Your task to perform on an android device: open app "Viber Messenger" (install if not already installed) and enter user name: "blameless@icloud.com" and password: "Yoknapatawpha" Image 0: 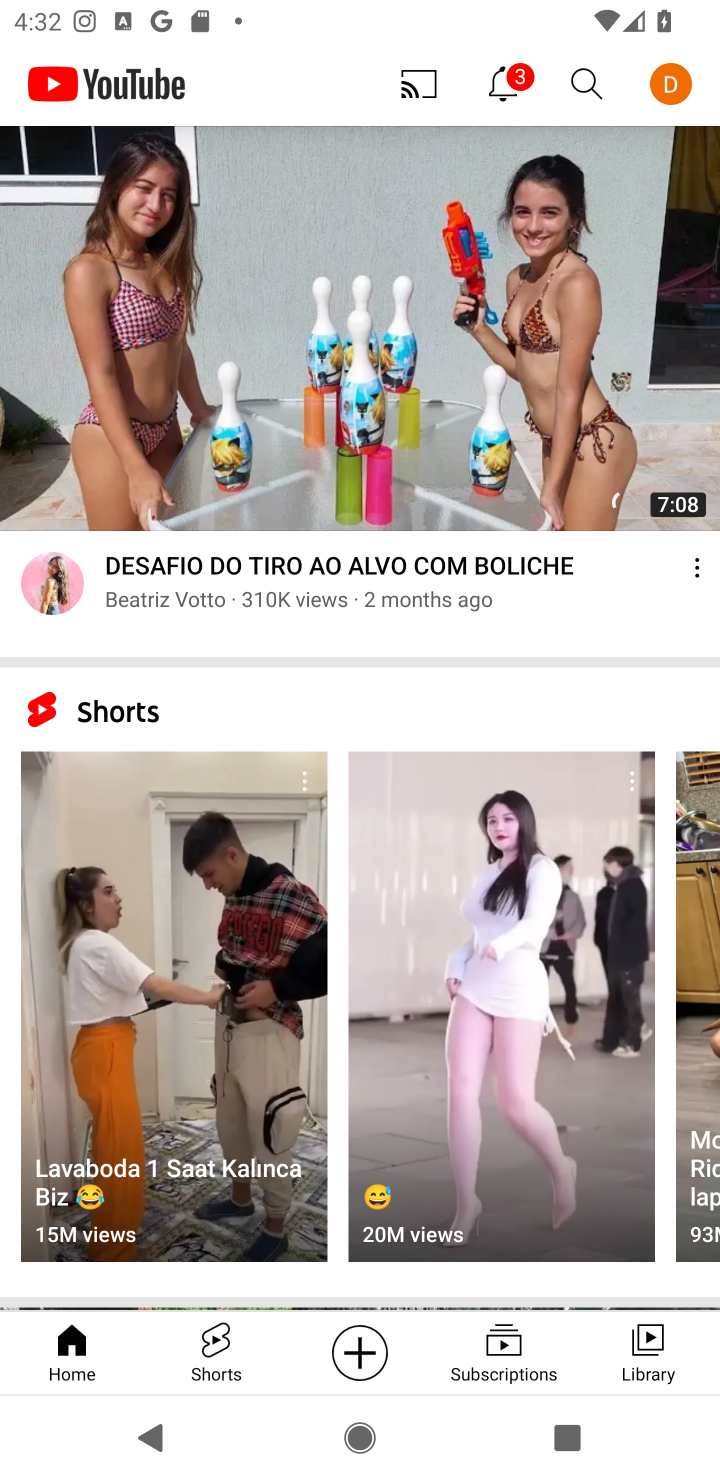
Step 0: press home button
Your task to perform on an android device: open app "Viber Messenger" (install if not already installed) and enter user name: "blameless@icloud.com" and password: "Yoknapatawpha" Image 1: 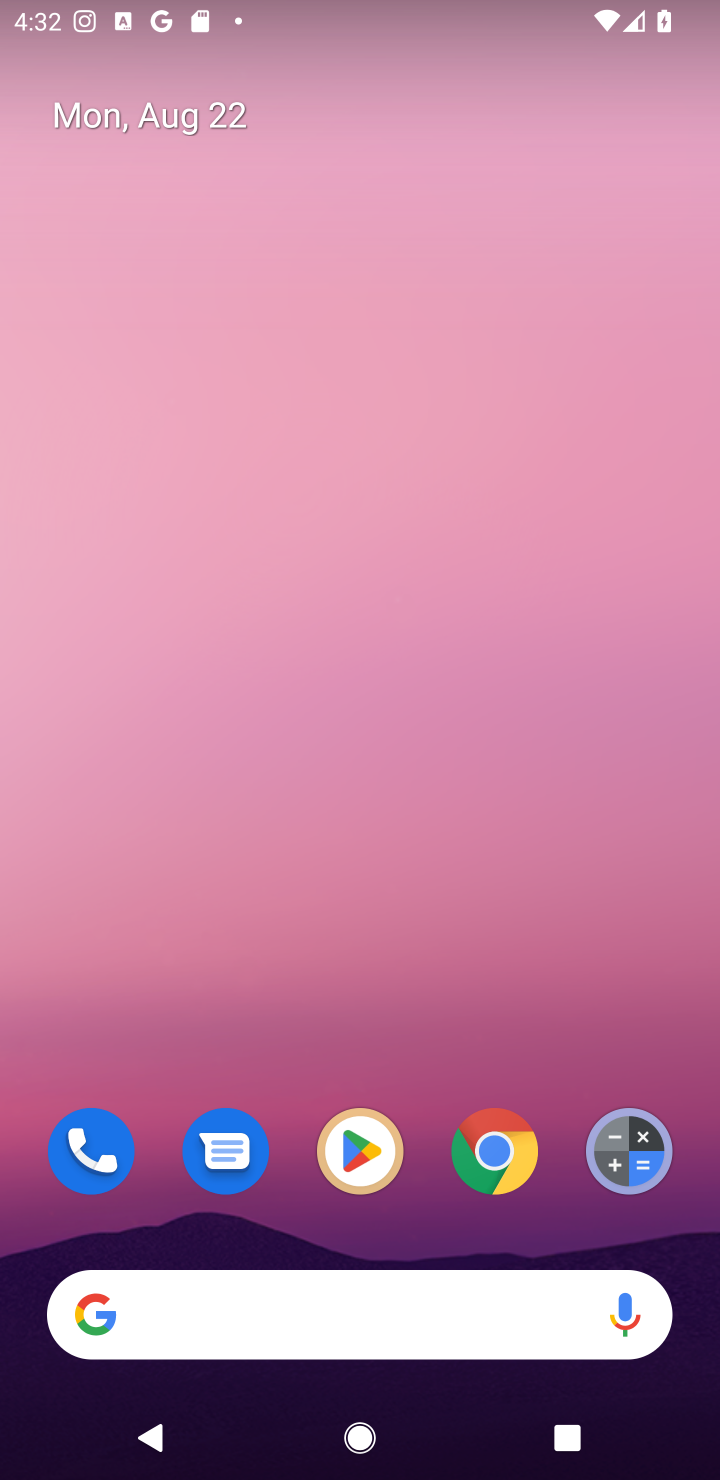
Step 1: click (357, 1147)
Your task to perform on an android device: open app "Viber Messenger" (install if not already installed) and enter user name: "blameless@icloud.com" and password: "Yoknapatawpha" Image 2: 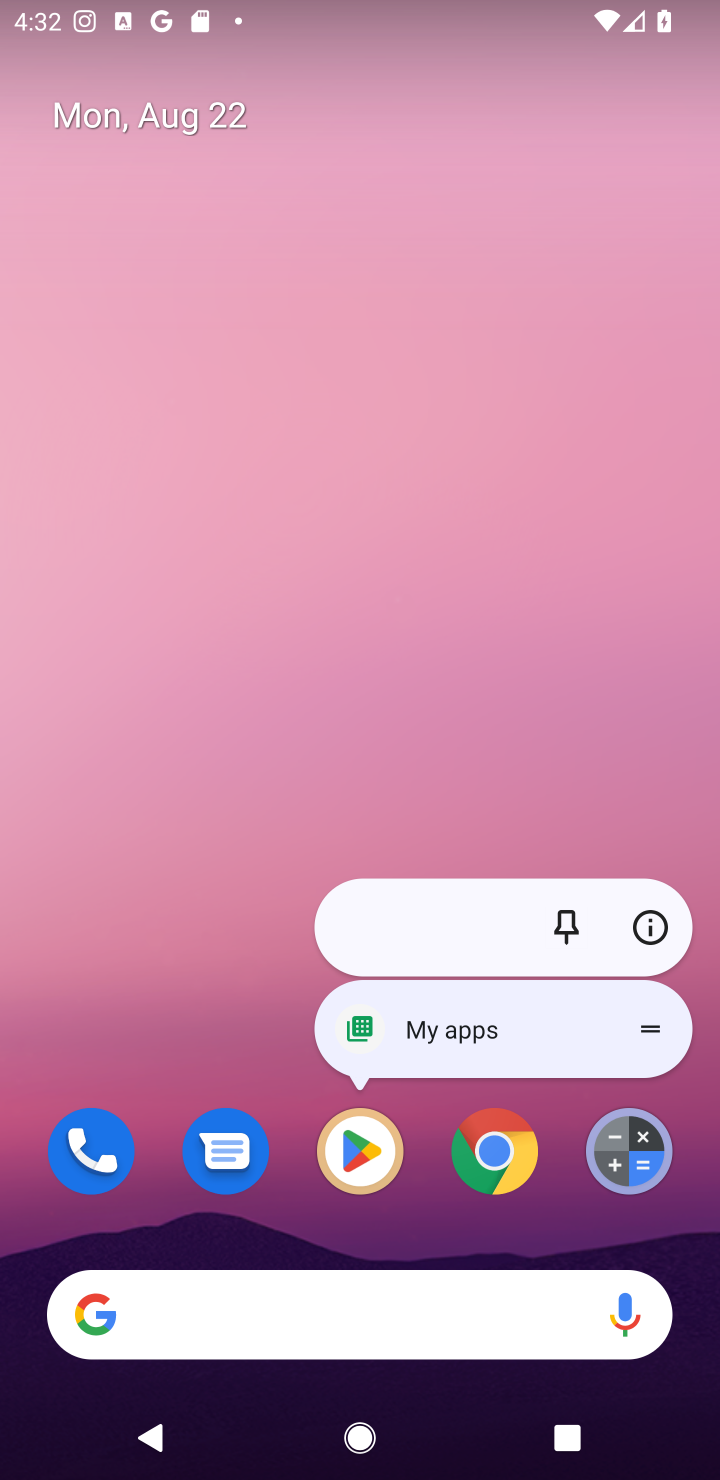
Step 2: click (357, 1148)
Your task to perform on an android device: open app "Viber Messenger" (install if not already installed) and enter user name: "blameless@icloud.com" and password: "Yoknapatawpha" Image 3: 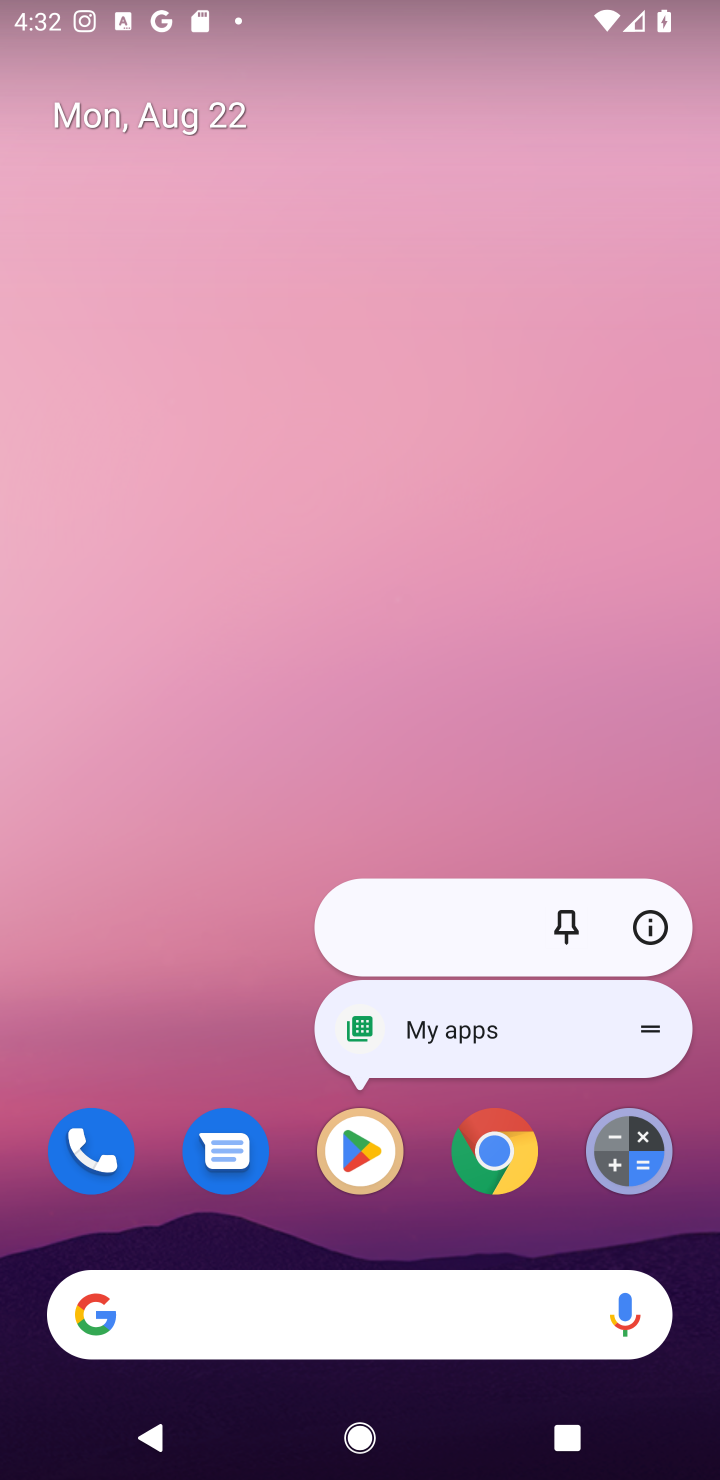
Step 3: click (347, 1167)
Your task to perform on an android device: open app "Viber Messenger" (install if not already installed) and enter user name: "blameless@icloud.com" and password: "Yoknapatawpha" Image 4: 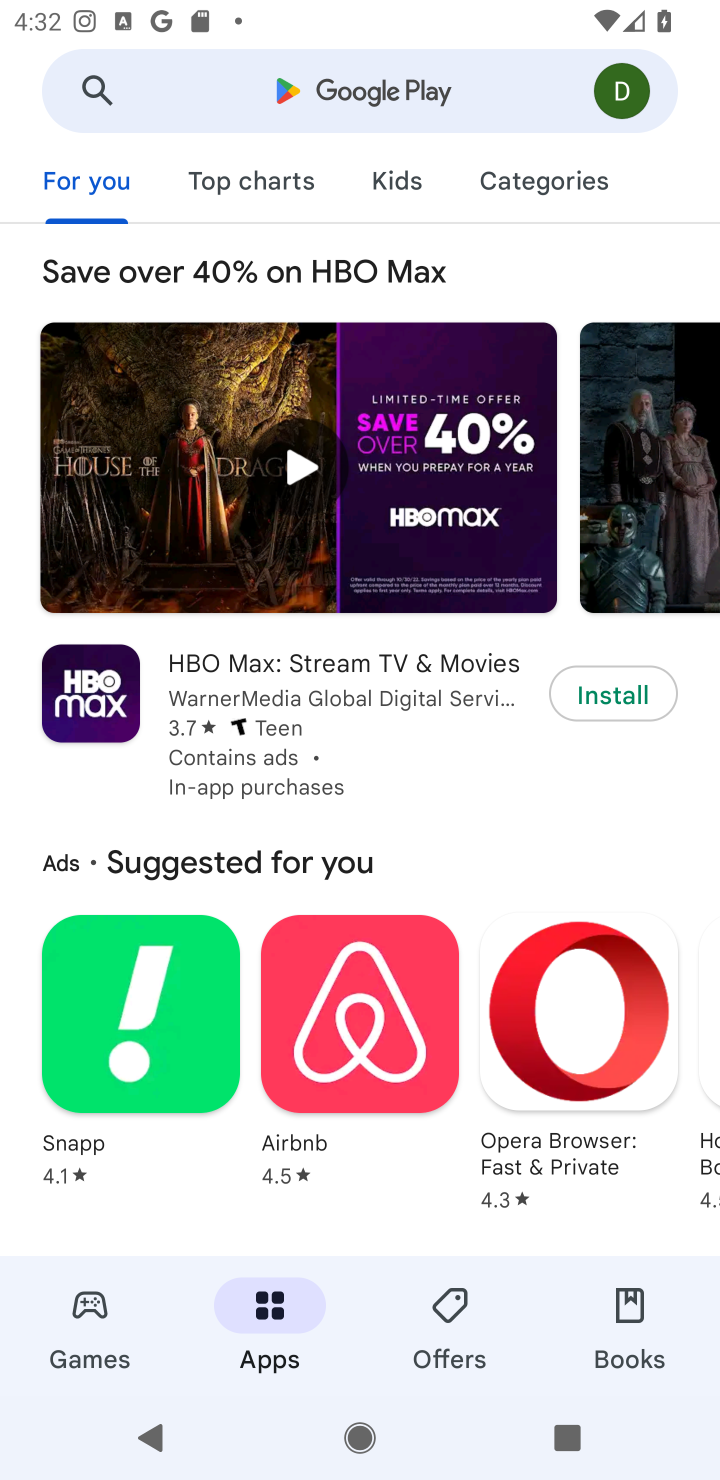
Step 4: click (469, 78)
Your task to perform on an android device: open app "Viber Messenger" (install if not already installed) and enter user name: "blameless@icloud.com" and password: "Yoknapatawpha" Image 5: 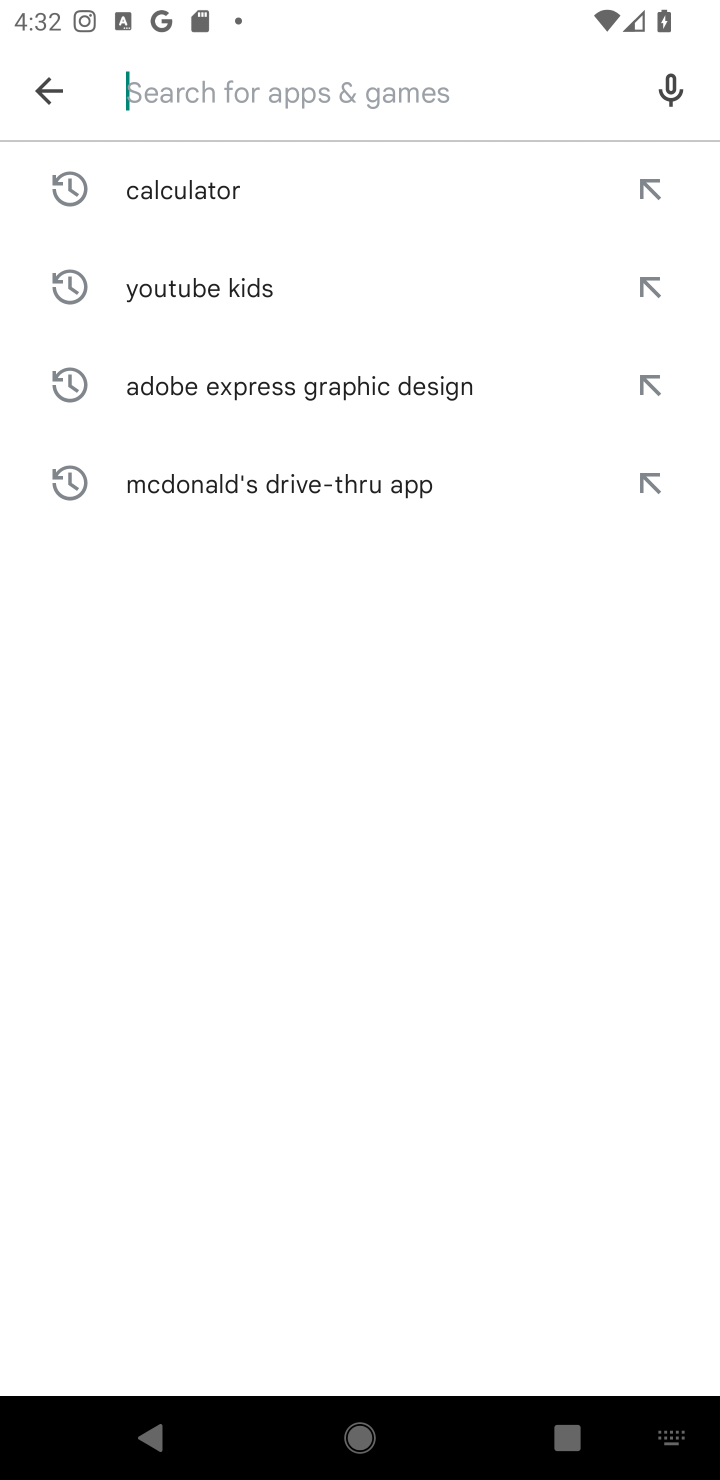
Step 5: type "Viber Messenger"
Your task to perform on an android device: open app "Viber Messenger" (install if not already installed) and enter user name: "blameless@icloud.com" and password: "Yoknapatawpha" Image 6: 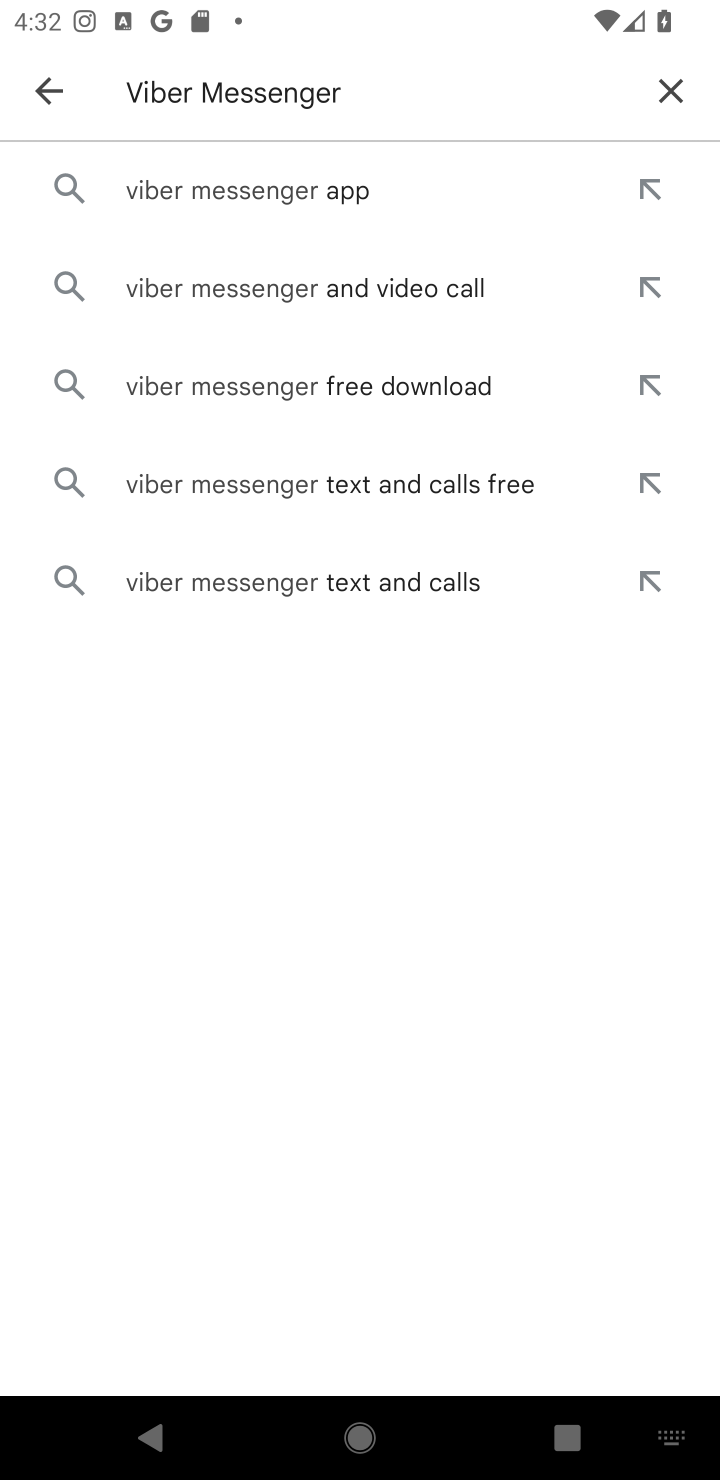
Step 6: click (328, 193)
Your task to perform on an android device: open app "Viber Messenger" (install if not already installed) and enter user name: "blameless@icloud.com" and password: "Yoknapatawpha" Image 7: 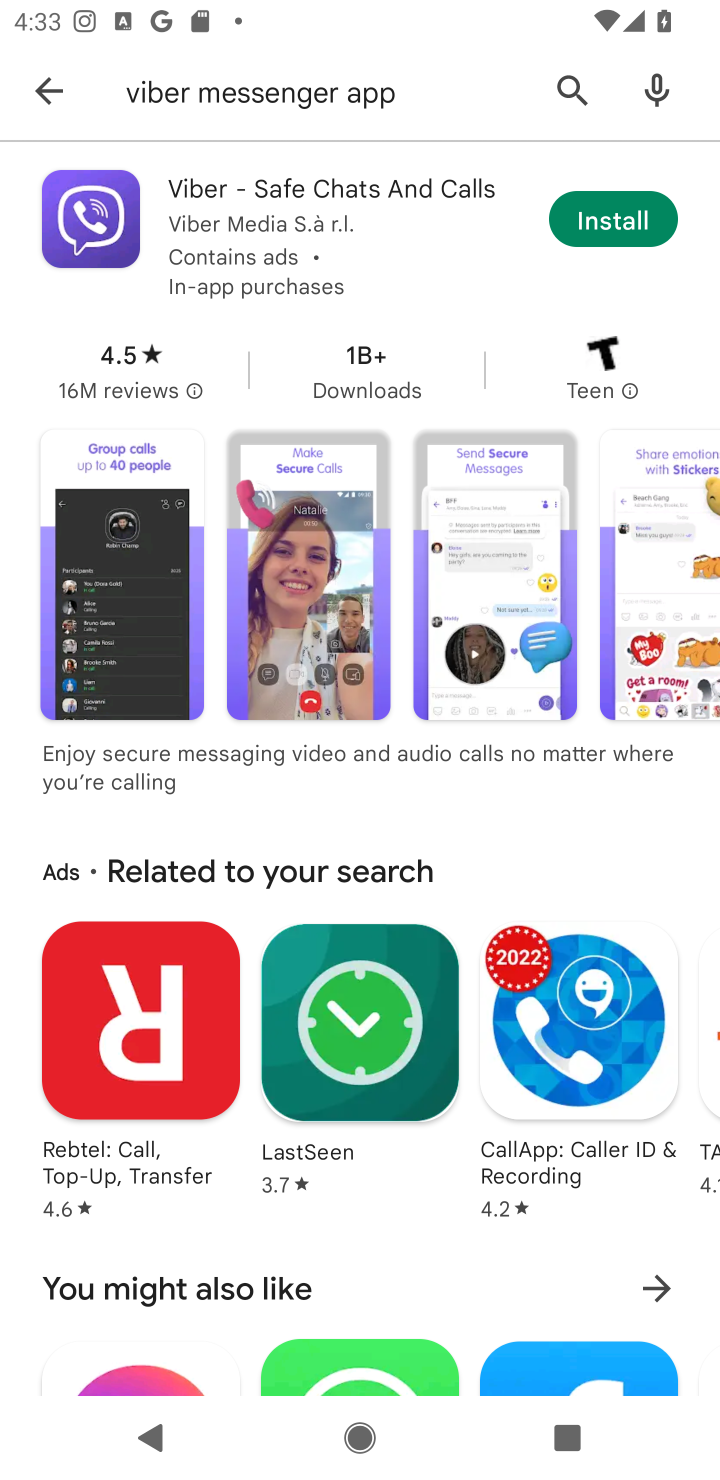
Step 7: click (631, 203)
Your task to perform on an android device: open app "Viber Messenger" (install if not already installed) and enter user name: "blameless@icloud.com" and password: "Yoknapatawpha" Image 8: 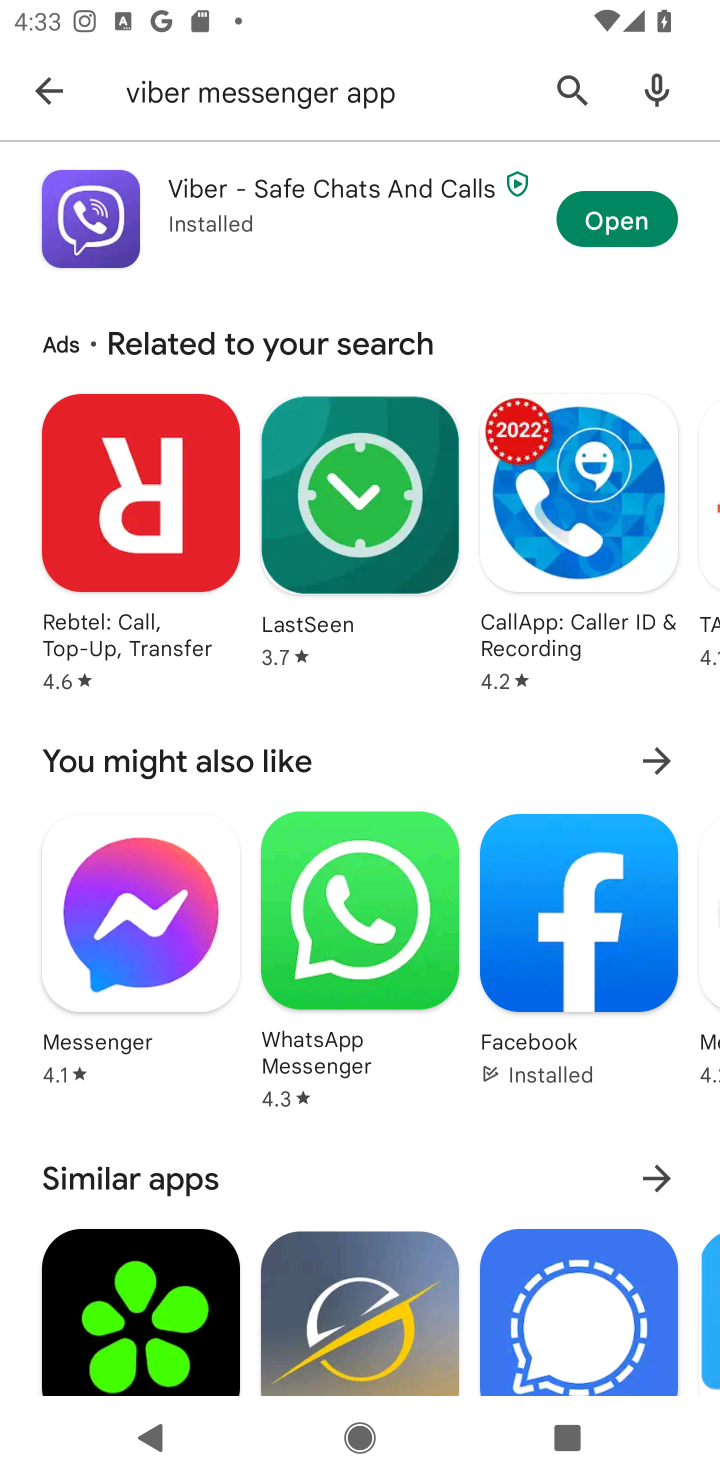
Step 8: click (637, 216)
Your task to perform on an android device: open app "Viber Messenger" (install if not already installed) and enter user name: "blameless@icloud.com" and password: "Yoknapatawpha" Image 9: 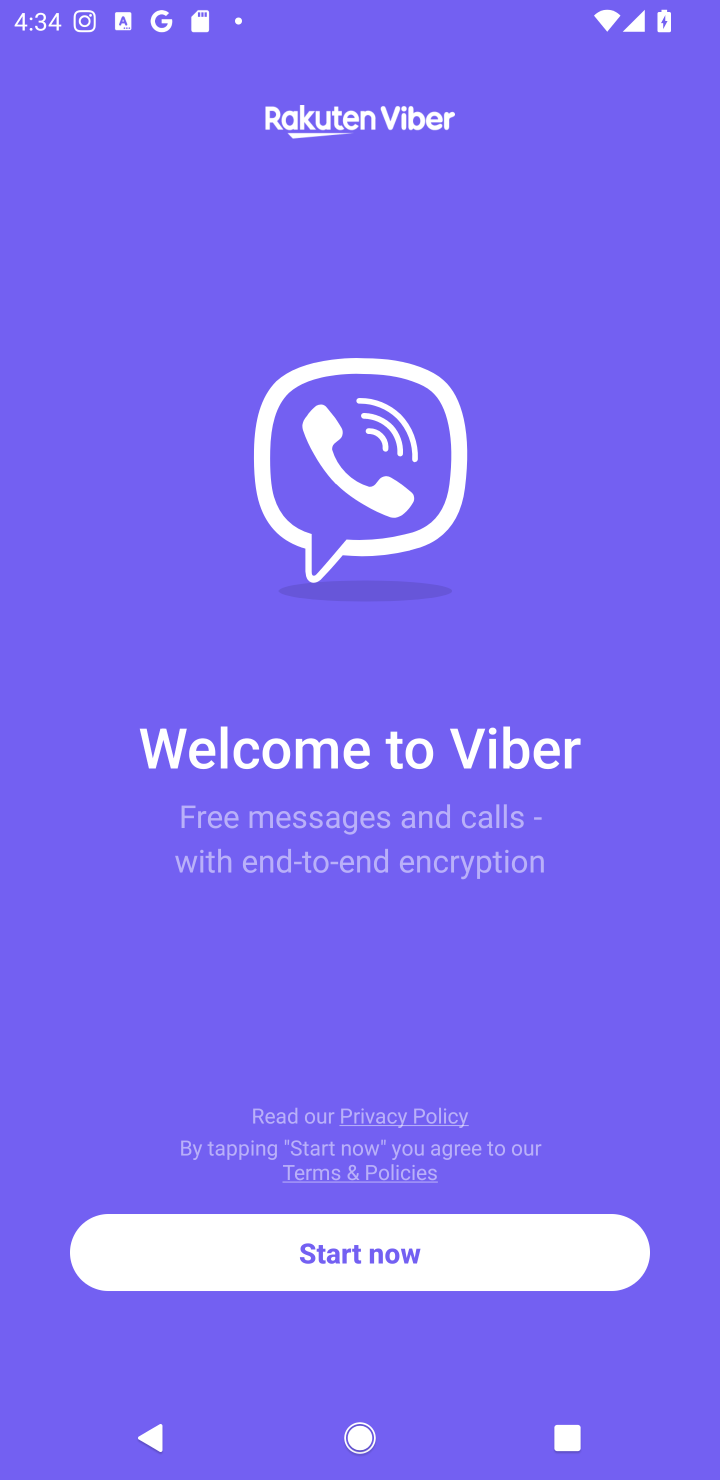
Step 9: click (454, 1247)
Your task to perform on an android device: open app "Viber Messenger" (install if not already installed) and enter user name: "blameless@icloud.com" and password: "Yoknapatawpha" Image 10: 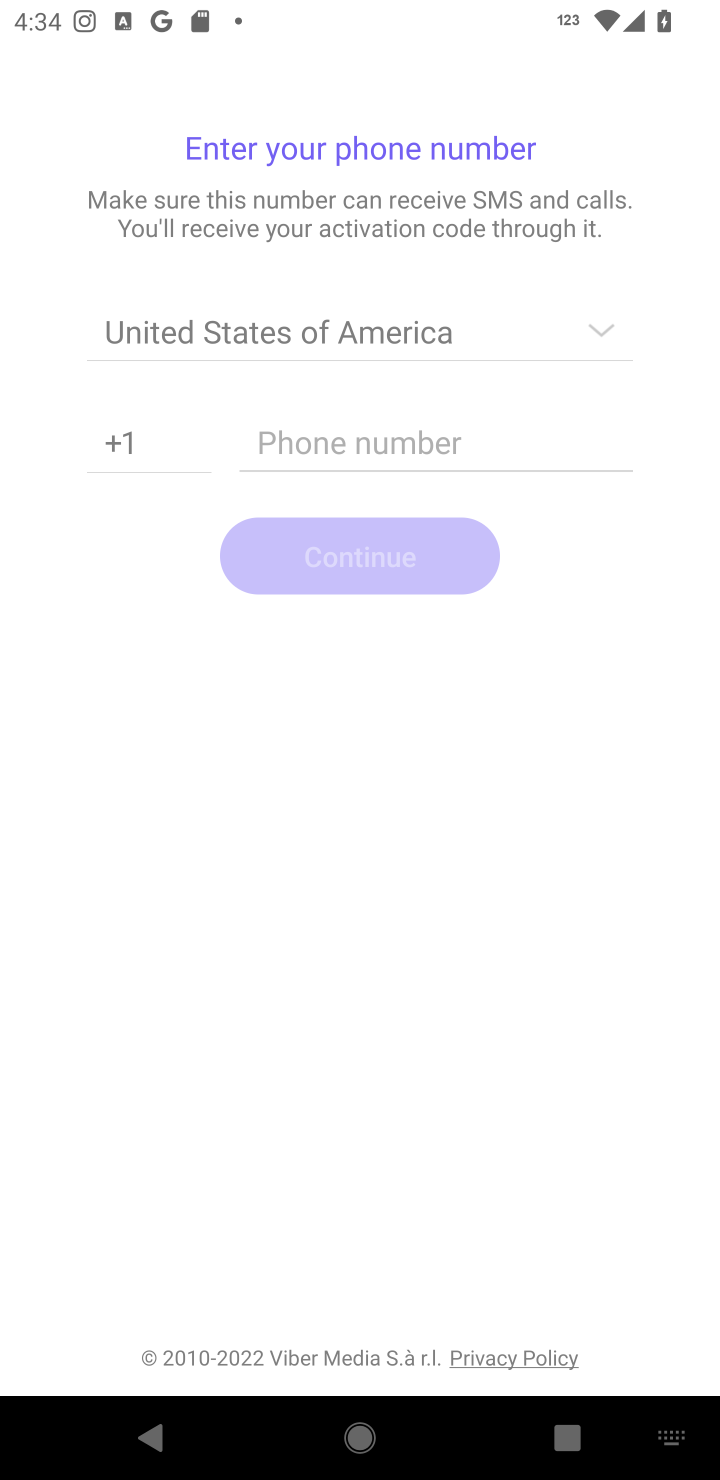
Step 10: task complete